Your task to perform on an android device: See recent photos Image 0: 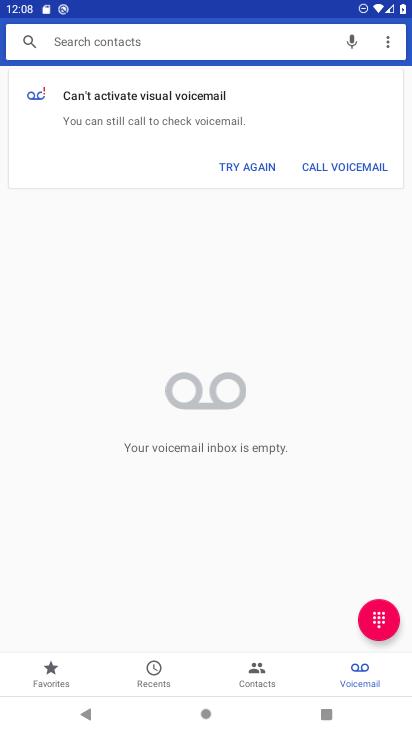
Step 0: press home button
Your task to perform on an android device: See recent photos Image 1: 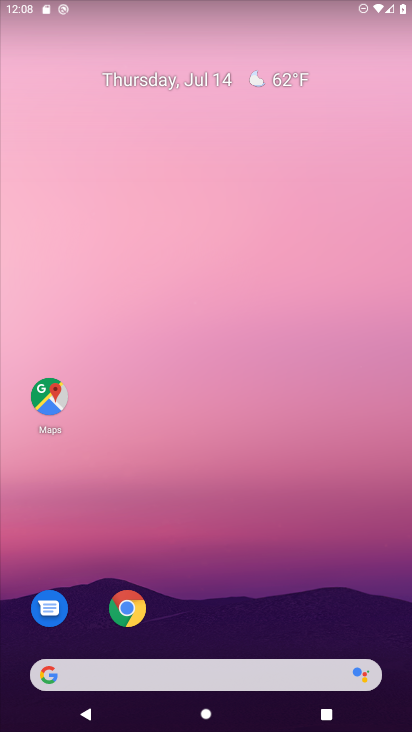
Step 1: drag from (256, 726) to (252, 17)
Your task to perform on an android device: See recent photos Image 2: 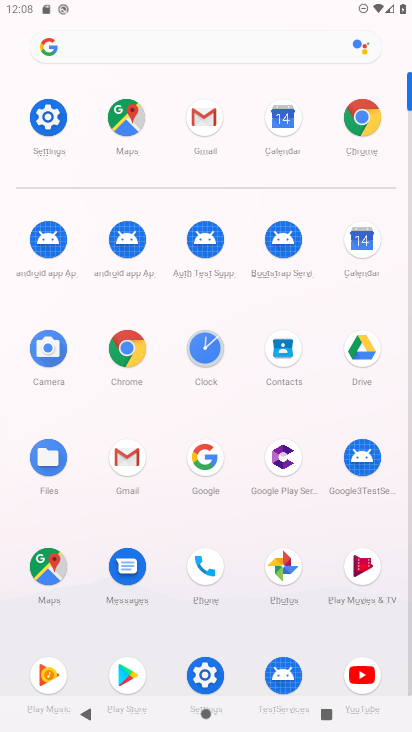
Step 2: click (284, 564)
Your task to perform on an android device: See recent photos Image 3: 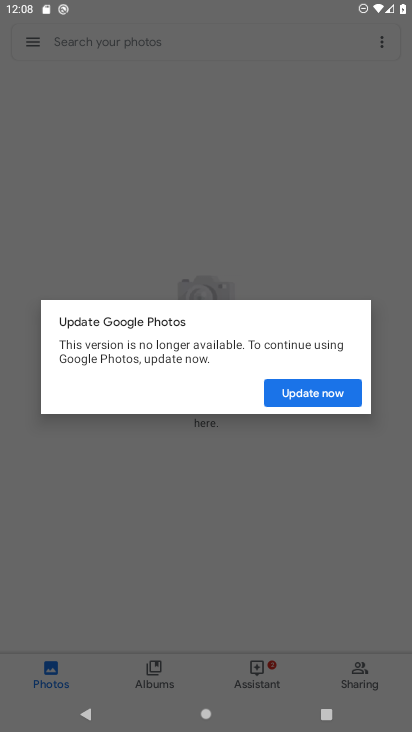
Step 3: click (49, 682)
Your task to perform on an android device: See recent photos Image 4: 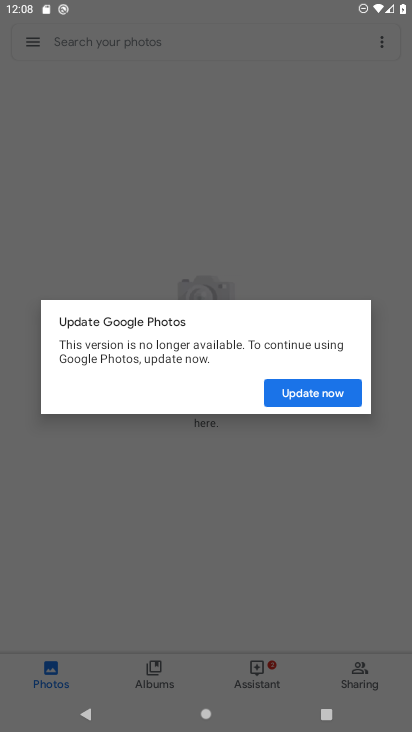
Step 4: click (49, 682)
Your task to perform on an android device: See recent photos Image 5: 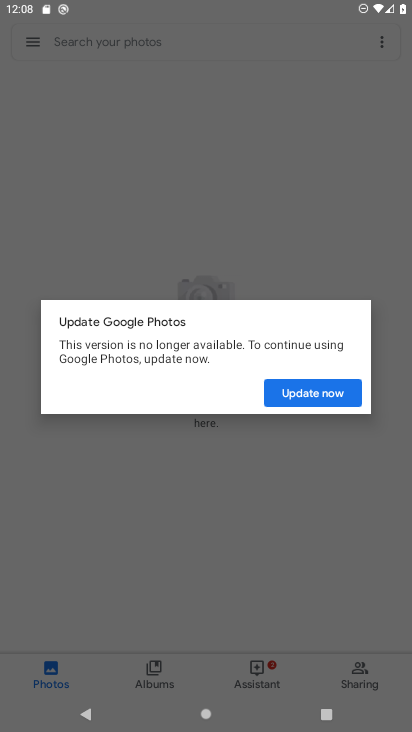
Step 5: click (49, 682)
Your task to perform on an android device: See recent photos Image 6: 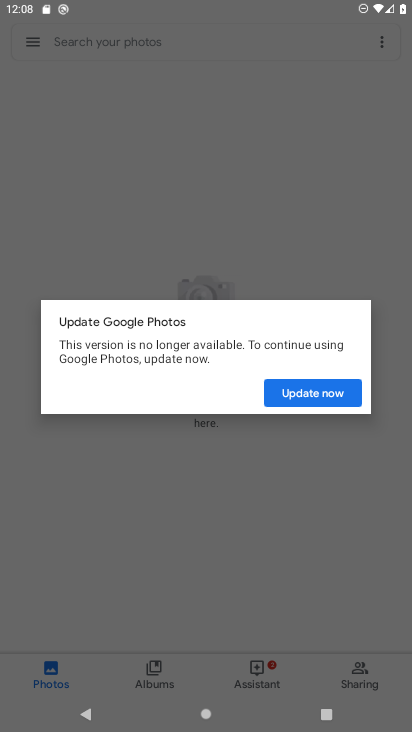
Step 6: click (49, 682)
Your task to perform on an android device: See recent photos Image 7: 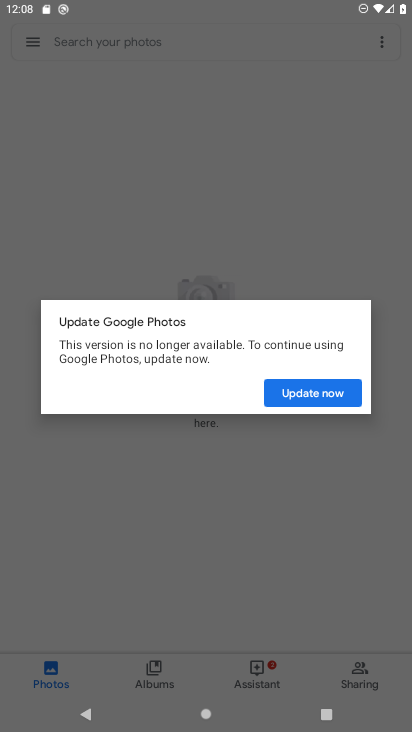
Step 7: click (49, 682)
Your task to perform on an android device: See recent photos Image 8: 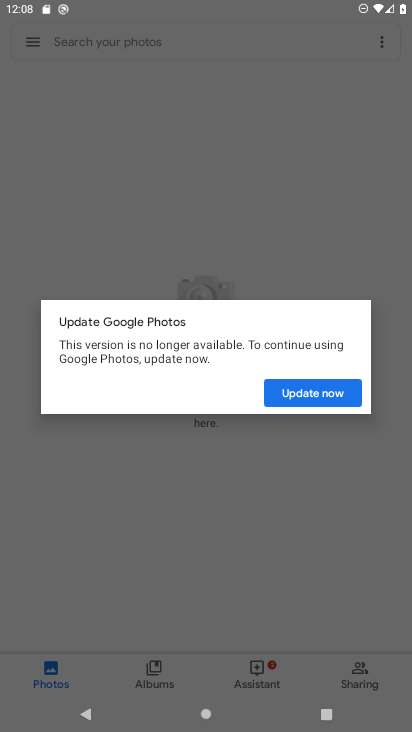
Step 8: click (49, 682)
Your task to perform on an android device: See recent photos Image 9: 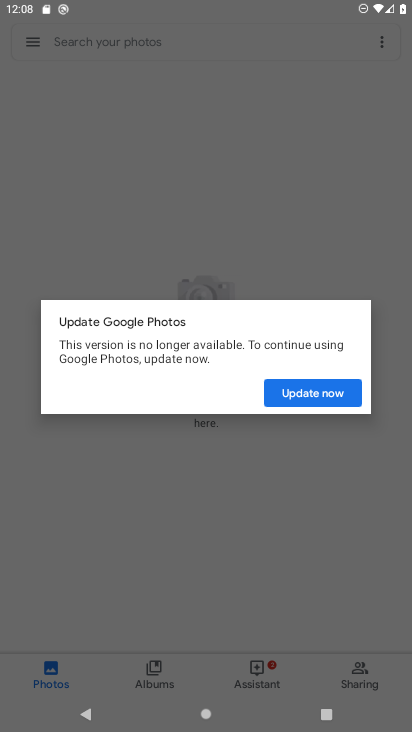
Step 9: click (49, 682)
Your task to perform on an android device: See recent photos Image 10: 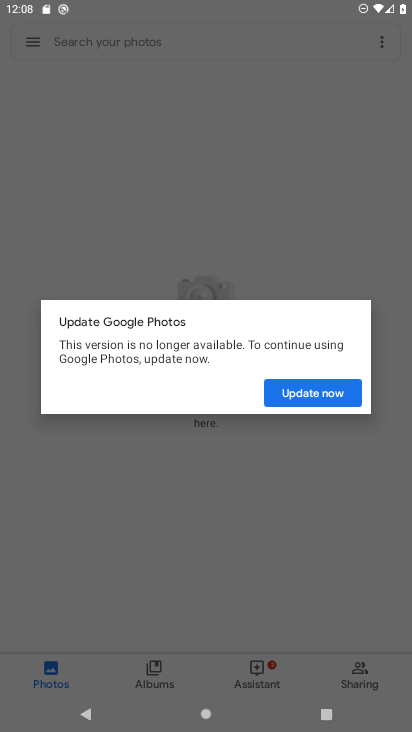
Step 10: click (49, 682)
Your task to perform on an android device: See recent photos Image 11: 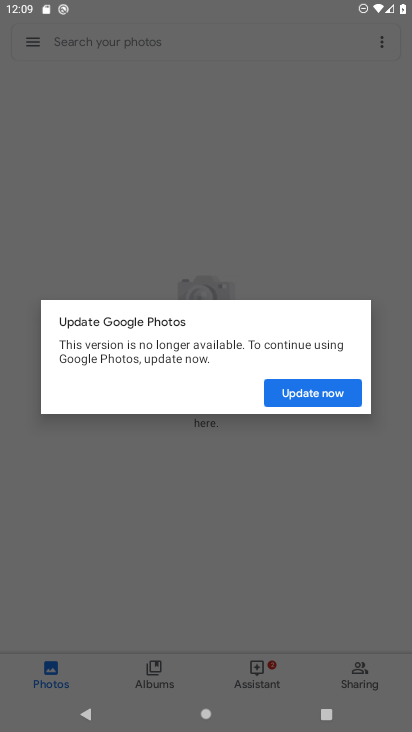
Step 11: task complete